Your task to perform on an android device: Open ESPN.com Image 0: 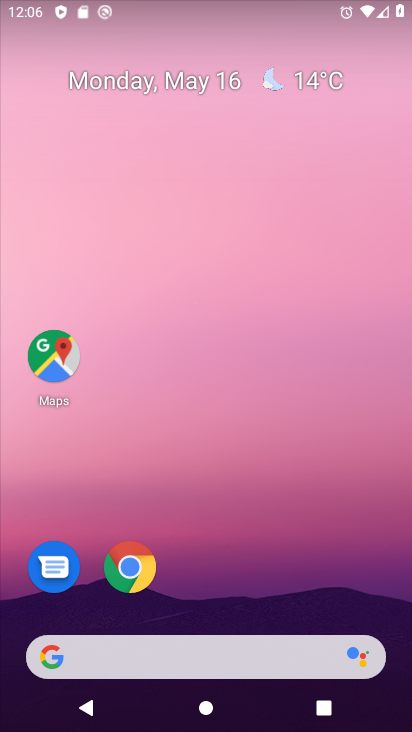
Step 0: click (125, 568)
Your task to perform on an android device: Open ESPN.com Image 1: 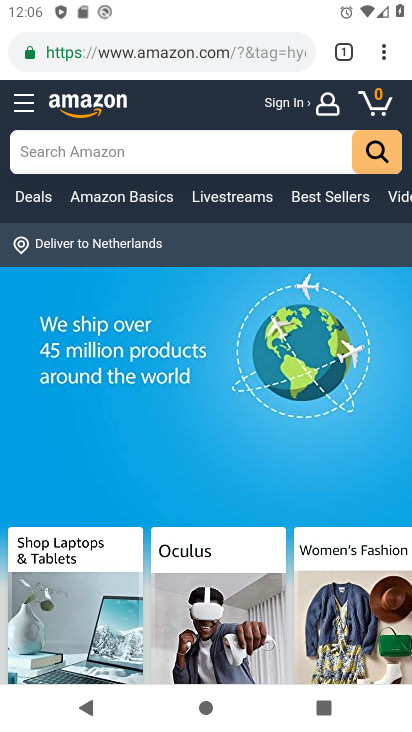
Step 1: click (165, 50)
Your task to perform on an android device: Open ESPN.com Image 2: 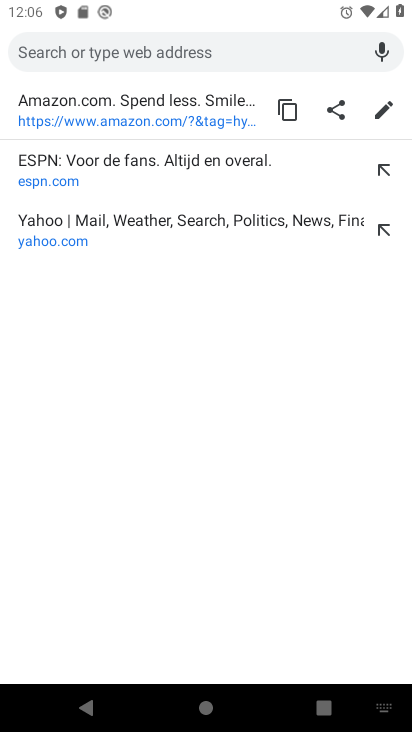
Step 2: type "ESPN.com"
Your task to perform on an android device: Open ESPN.com Image 3: 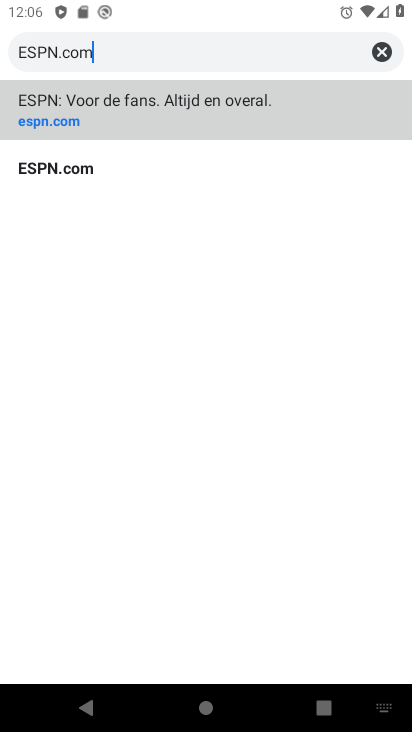
Step 3: click (44, 111)
Your task to perform on an android device: Open ESPN.com Image 4: 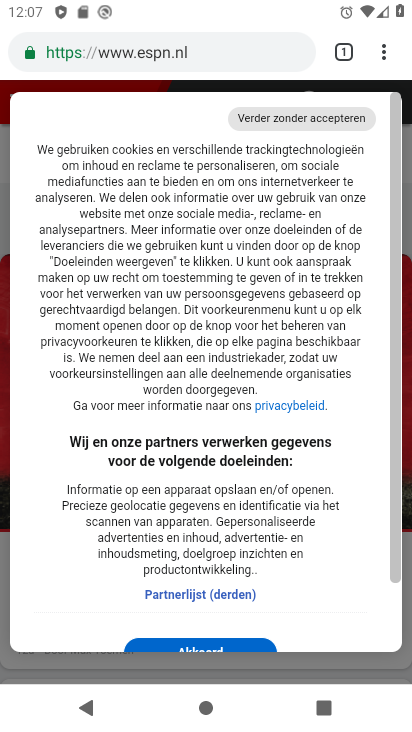
Step 4: task complete